Your task to perform on an android device: turn off location history Image 0: 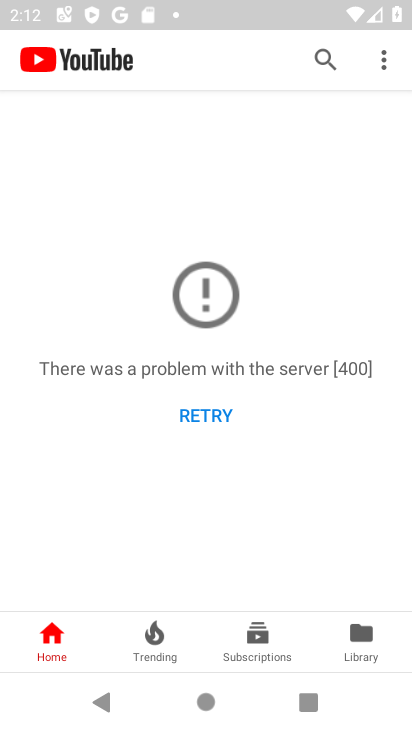
Step 0: press home button
Your task to perform on an android device: turn off location history Image 1: 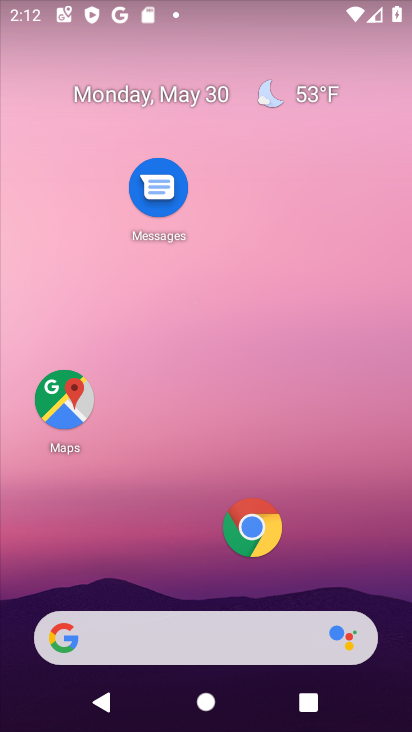
Step 1: drag from (138, 536) to (274, 93)
Your task to perform on an android device: turn off location history Image 2: 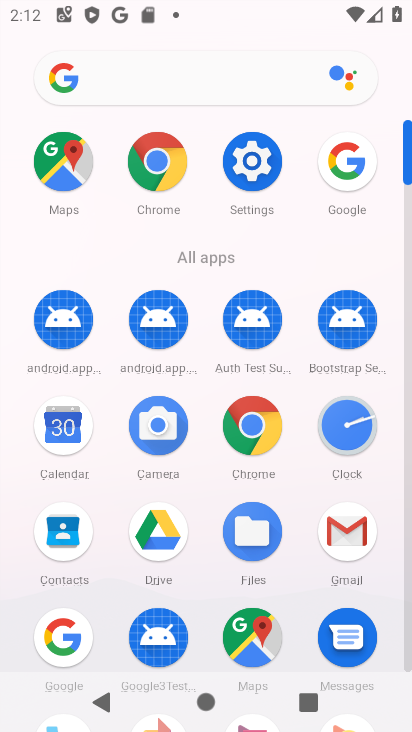
Step 2: drag from (207, 235) to (211, 65)
Your task to perform on an android device: turn off location history Image 3: 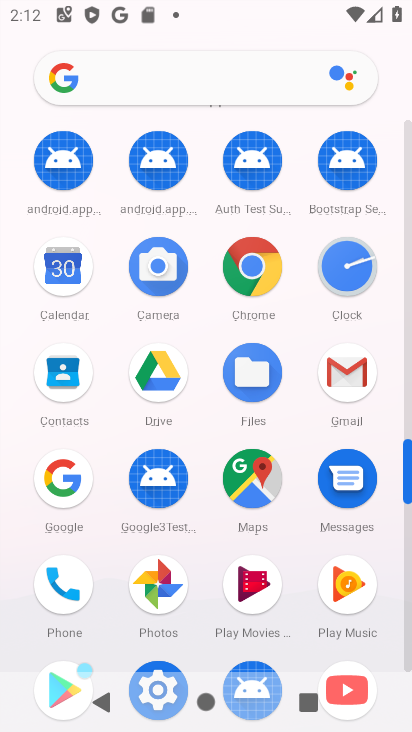
Step 3: drag from (211, 237) to (197, 81)
Your task to perform on an android device: turn off location history Image 4: 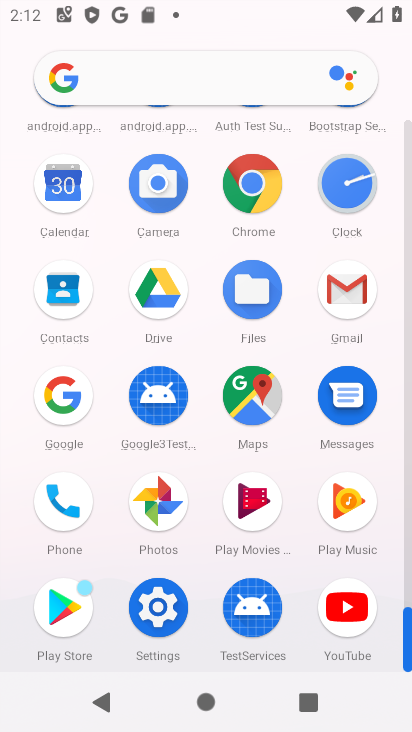
Step 4: click (158, 602)
Your task to perform on an android device: turn off location history Image 5: 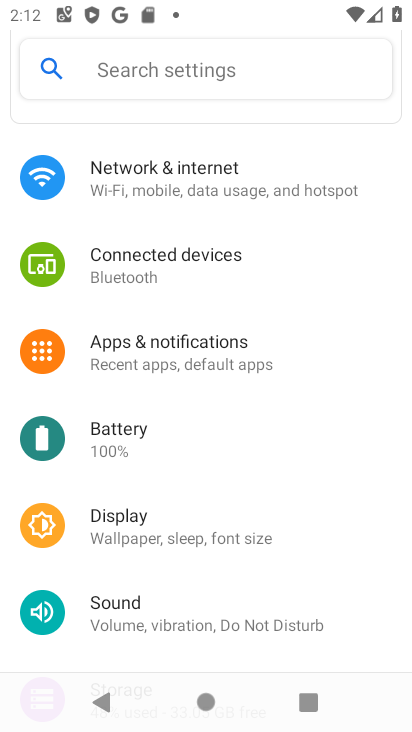
Step 5: drag from (168, 588) to (172, 252)
Your task to perform on an android device: turn off location history Image 6: 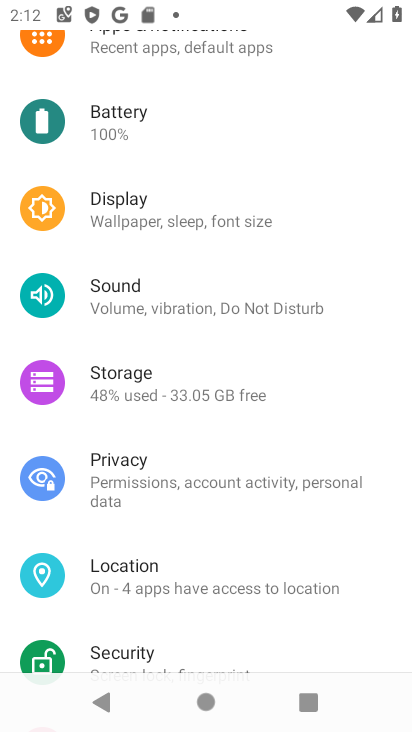
Step 6: click (160, 575)
Your task to perform on an android device: turn off location history Image 7: 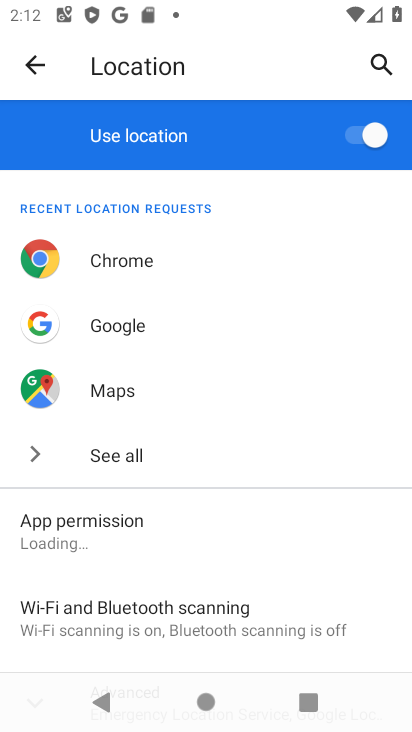
Step 7: drag from (230, 520) to (266, 226)
Your task to perform on an android device: turn off location history Image 8: 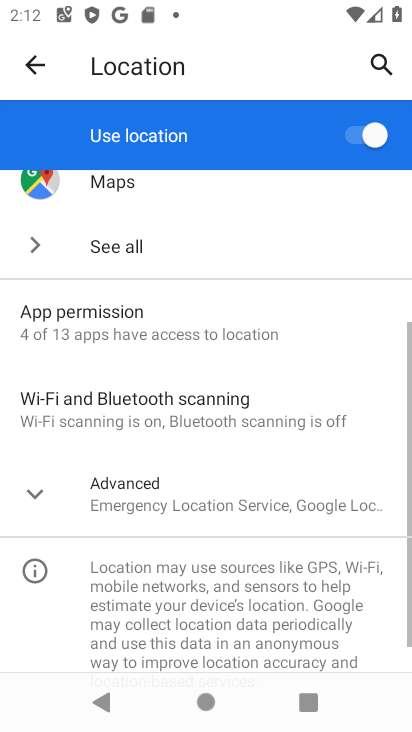
Step 8: click (214, 504)
Your task to perform on an android device: turn off location history Image 9: 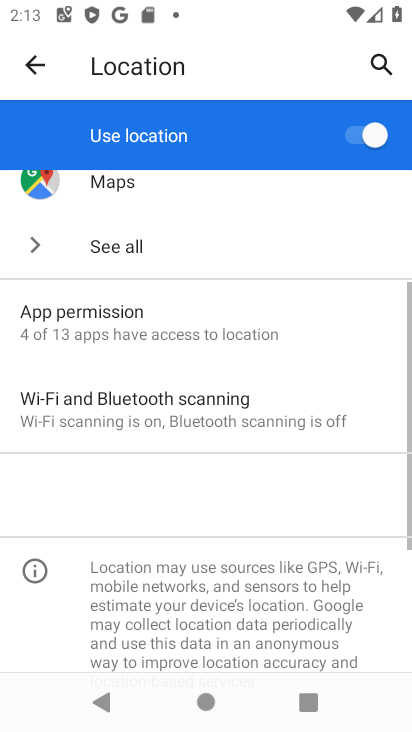
Step 9: drag from (214, 501) to (241, 255)
Your task to perform on an android device: turn off location history Image 10: 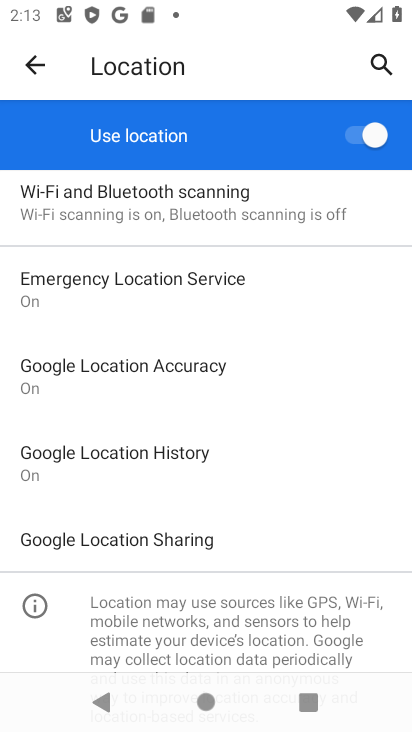
Step 10: click (198, 468)
Your task to perform on an android device: turn off location history Image 11: 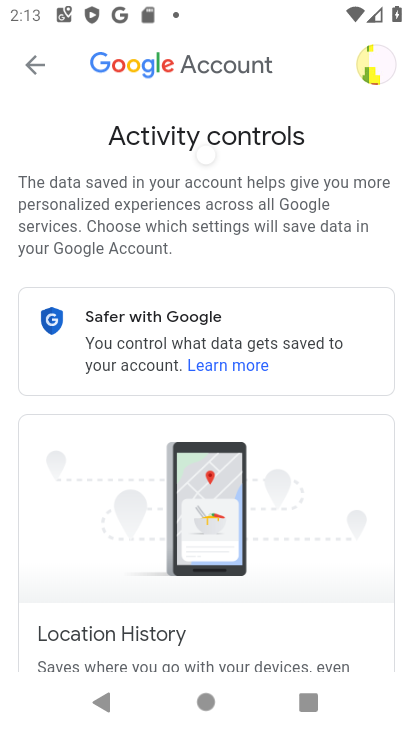
Step 11: drag from (231, 564) to (203, 243)
Your task to perform on an android device: turn off location history Image 12: 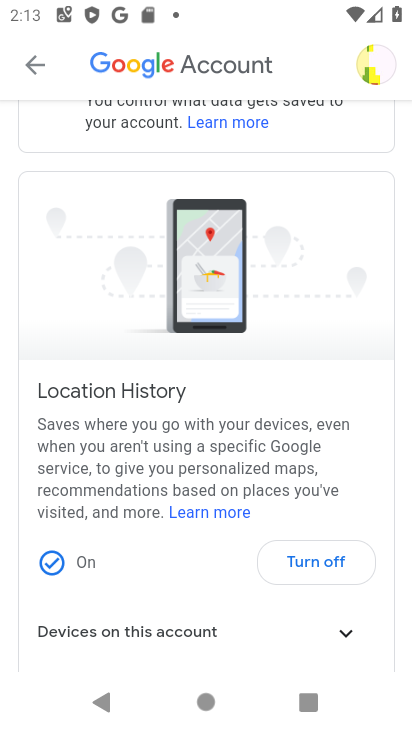
Step 12: click (294, 571)
Your task to perform on an android device: turn off location history Image 13: 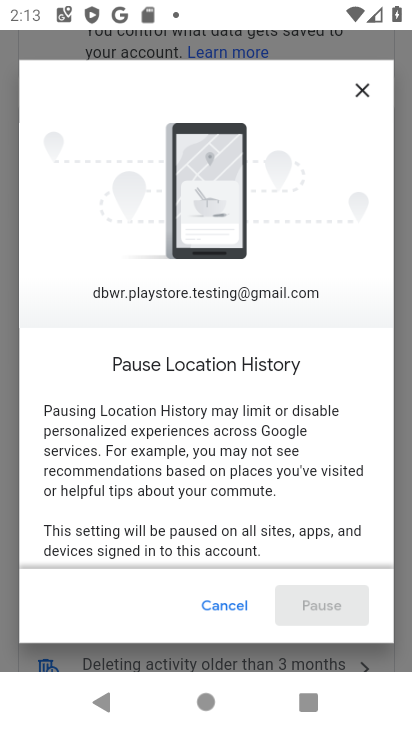
Step 13: drag from (288, 506) to (297, 177)
Your task to perform on an android device: turn off location history Image 14: 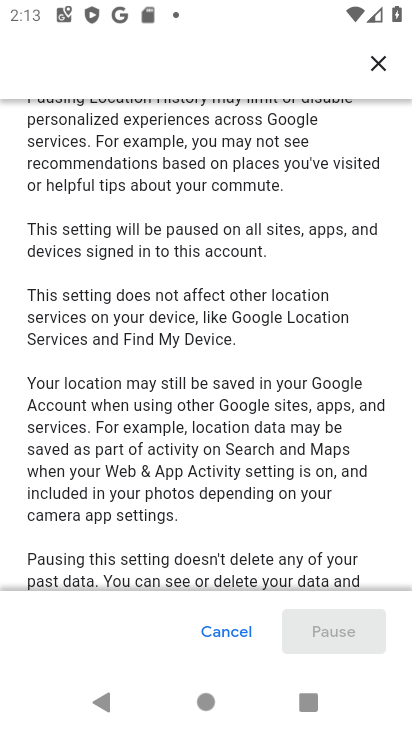
Step 14: drag from (311, 517) to (284, 196)
Your task to perform on an android device: turn off location history Image 15: 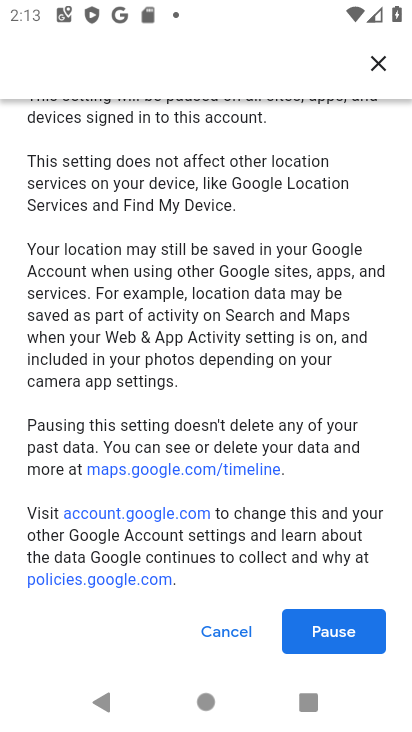
Step 15: drag from (258, 418) to (255, 217)
Your task to perform on an android device: turn off location history Image 16: 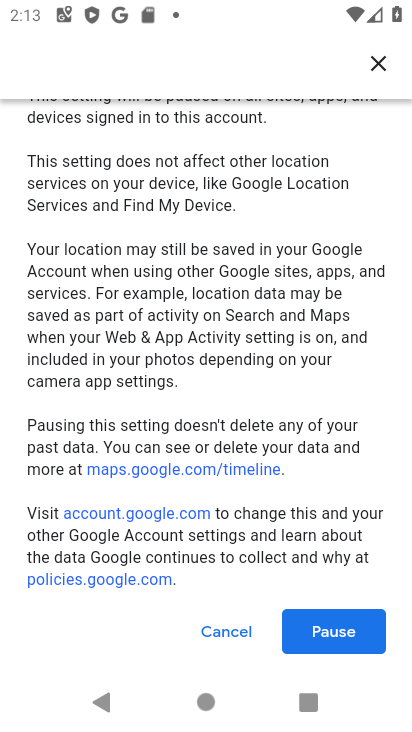
Step 16: click (323, 635)
Your task to perform on an android device: turn off location history Image 17: 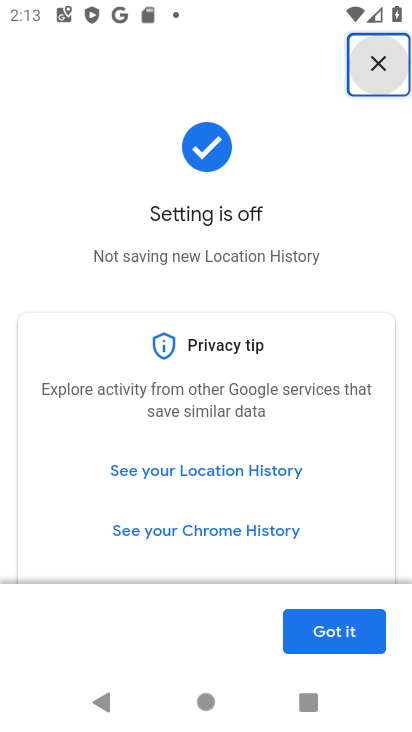
Step 17: click (344, 634)
Your task to perform on an android device: turn off location history Image 18: 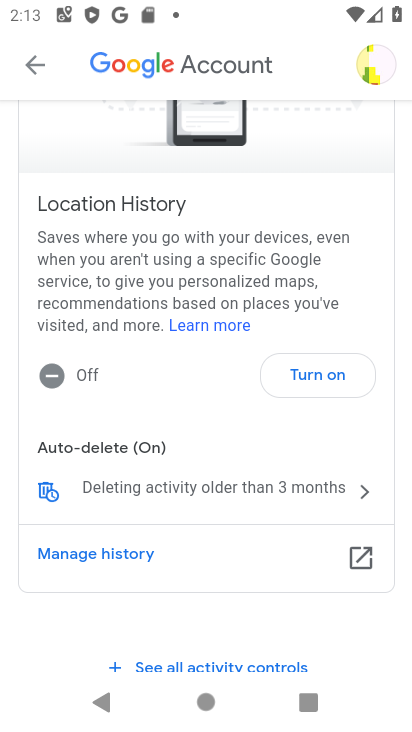
Step 18: task complete